Your task to perform on an android device: Open Maps and search for coffee Image 0: 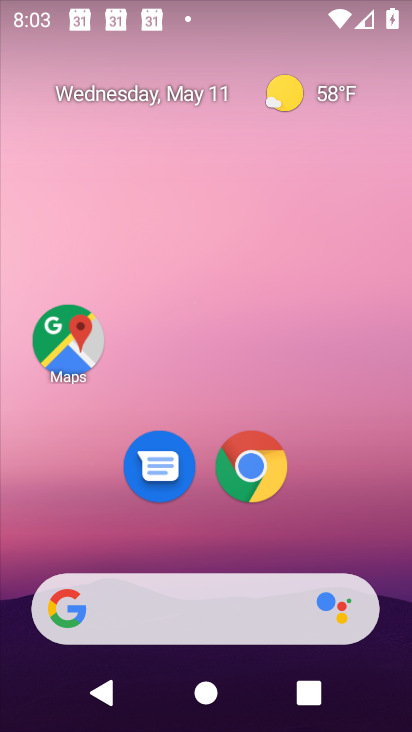
Step 0: drag from (203, 517) to (217, 64)
Your task to perform on an android device: Open Maps and search for coffee Image 1: 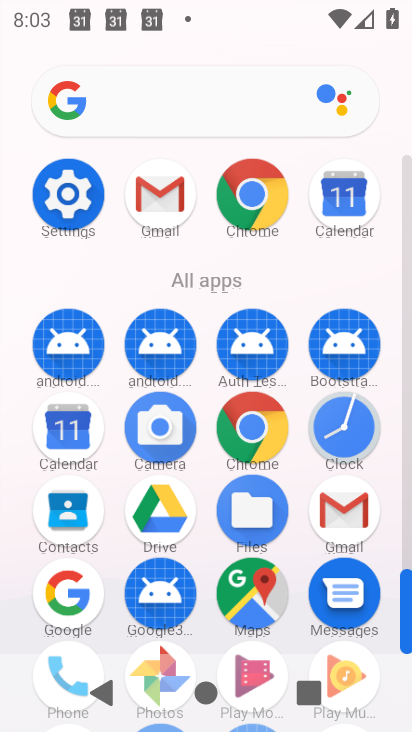
Step 1: click (249, 603)
Your task to perform on an android device: Open Maps and search for coffee Image 2: 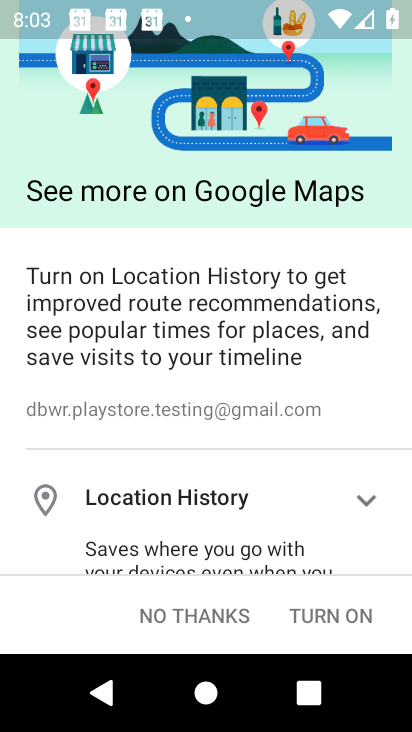
Step 2: click (160, 613)
Your task to perform on an android device: Open Maps and search for coffee Image 3: 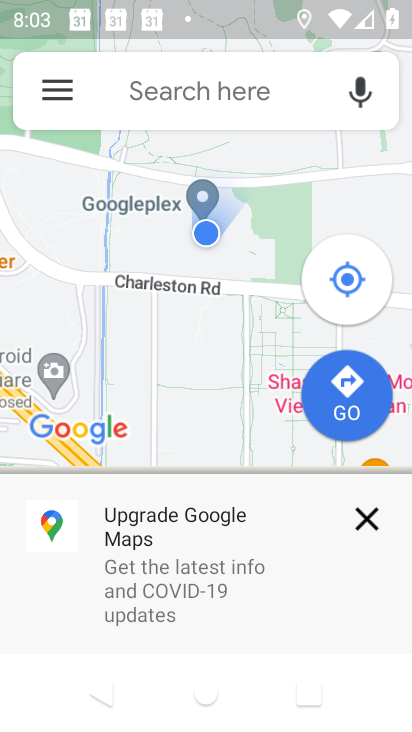
Step 3: click (220, 107)
Your task to perform on an android device: Open Maps and search for coffee Image 4: 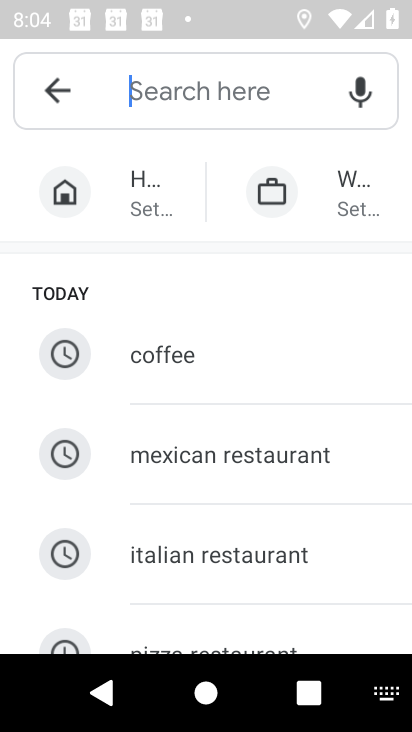
Step 4: type "coffee"
Your task to perform on an android device: Open Maps and search for coffee Image 5: 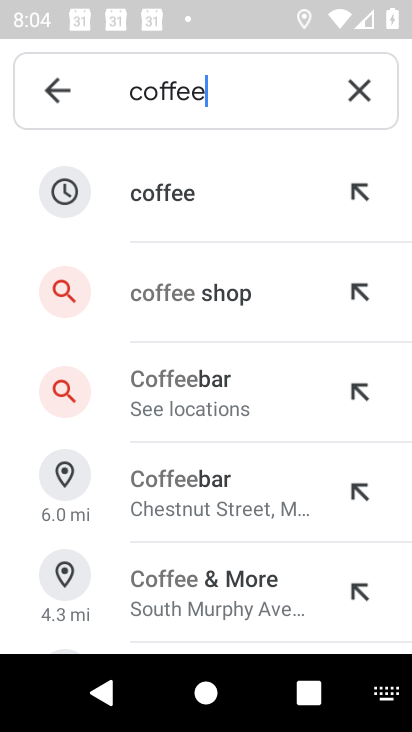
Step 5: click (228, 228)
Your task to perform on an android device: Open Maps and search for coffee Image 6: 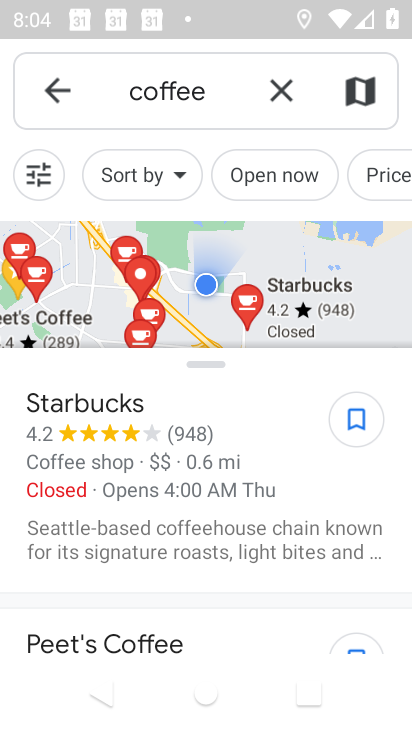
Step 6: task complete